Your task to perform on an android device: turn on wifi Image 0: 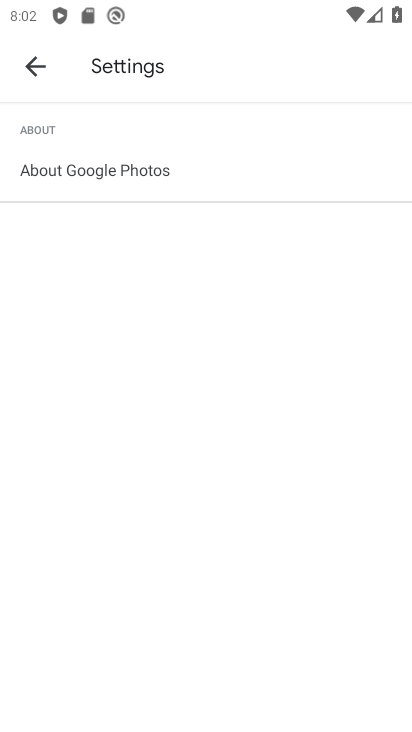
Step 0: press home button
Your task to perform on an android device: turn on wifi Image 1: 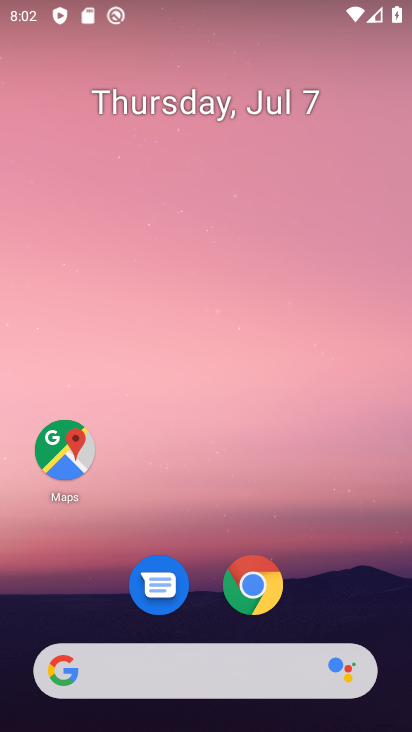
Step 1: drag from (320, 590) to (322, 39)
Your task to perform on an android device: turn on wifi Image 2: 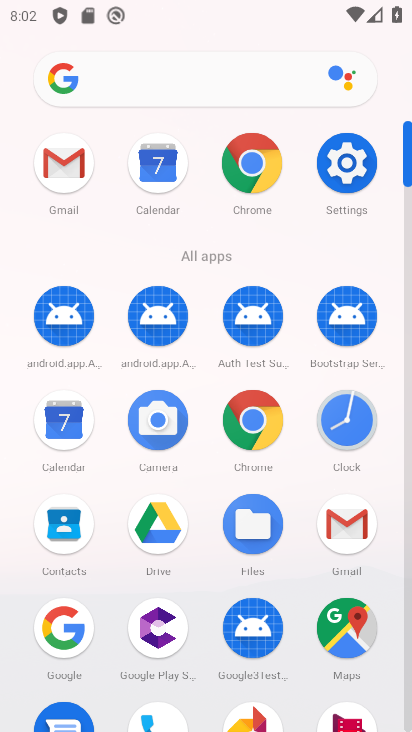
Step 2: click (357, 158)
Your task to perform on an android device: turn on wifi Image 3: 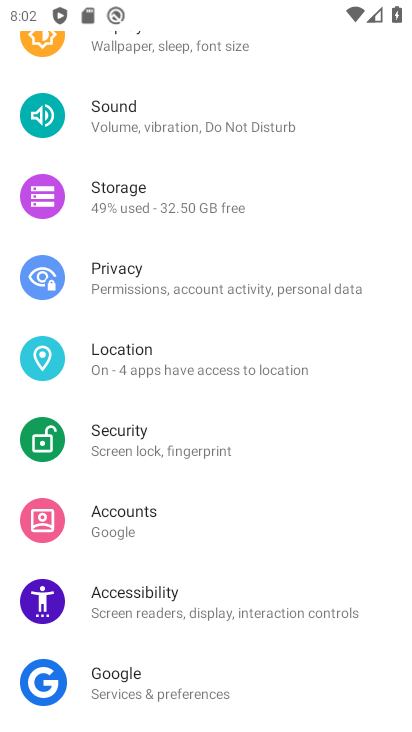
Step 3: drag from (219, 162) to (166, 655)
Your task to perform on an android device: turn on wifi Image 4: 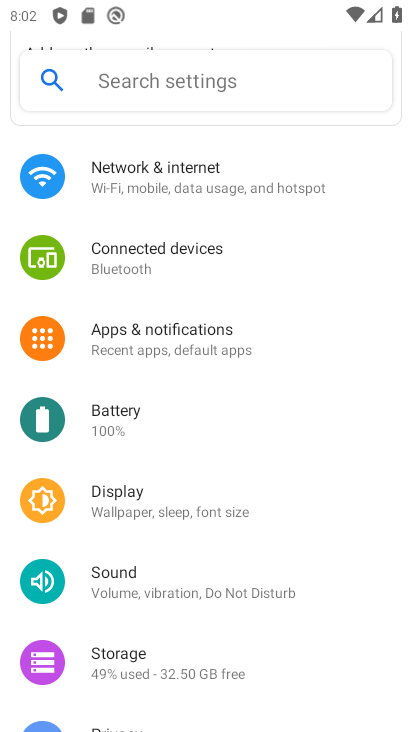
Step 4: click (209, 182)
Your task to perform on an android device: turn on wifi Image 5: 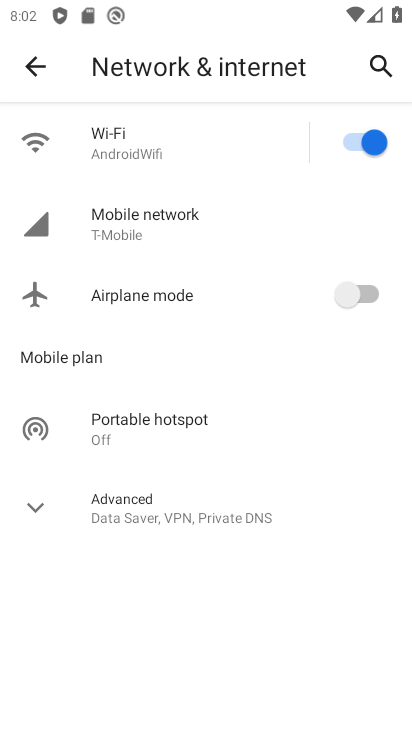
Step 5: task complete